Your task to perform on an android device: What's on my calendar tomorrow? Image 0: 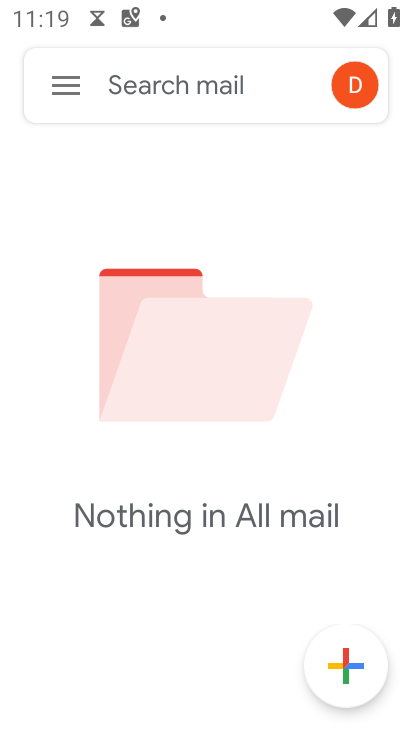
Step 0: press home button
Your task to perform on an android device: What's on my calendar tomorrow? Image 1: 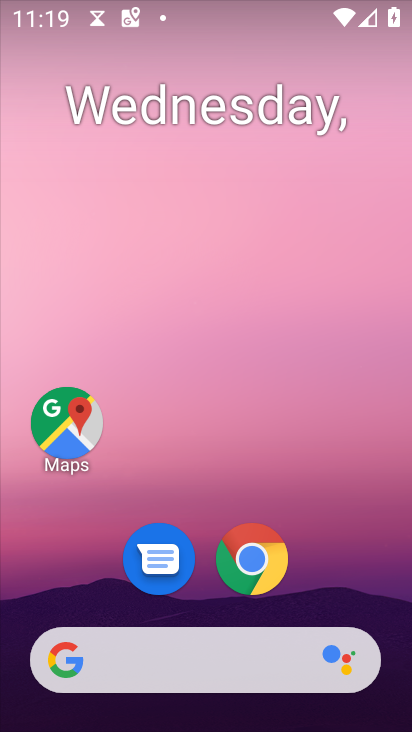
Step 1: drag from (374, 595) to (311, 233)
Your task to perform on an android device: What's on my calendar tomorrow? Image 2: 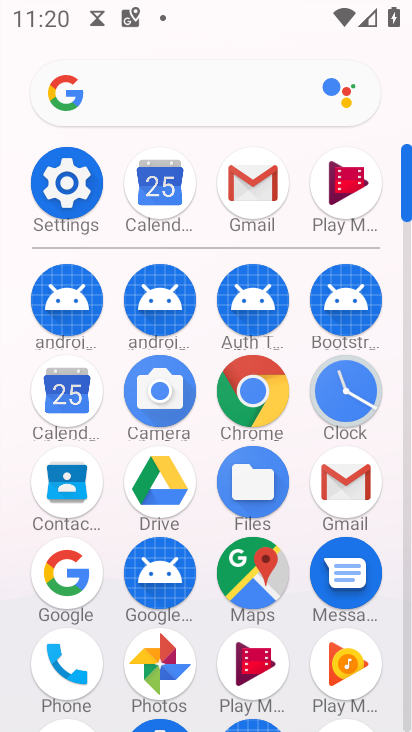
Step 2: click (69, 396)
Your task to perform on an android device: What's on my calendar tomorrow? Image 3: 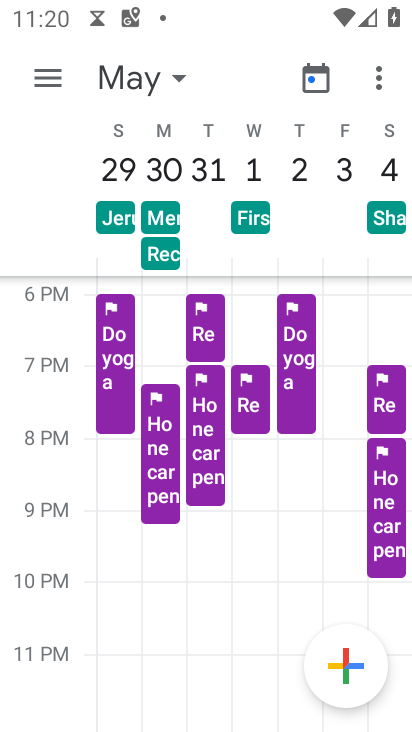
Step 3: click (118, 77)
Your task to perform on an android device: What's on my calendar tomorrow? Image 4: 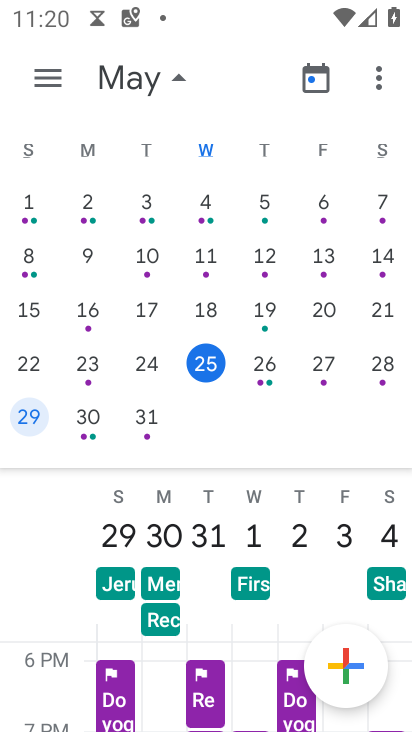
Step 4: click (53, 75)
Your task to perform on an android device: What's on my calendar tomorrow? Image 5: 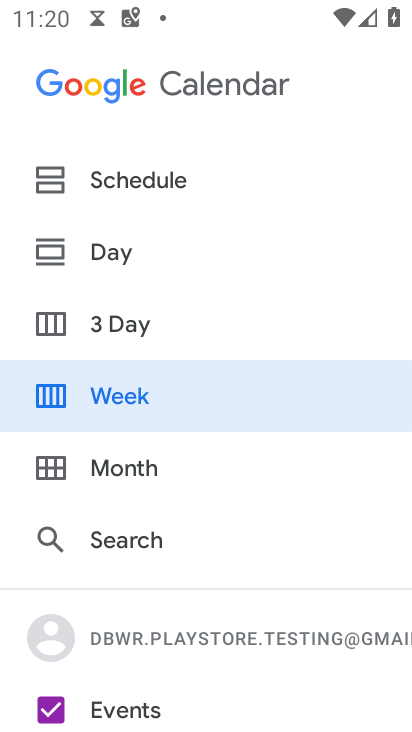
Step 5: click (119, 179)
Your task to perform on an android device: What's on my calendar tomorrow? Image 6: 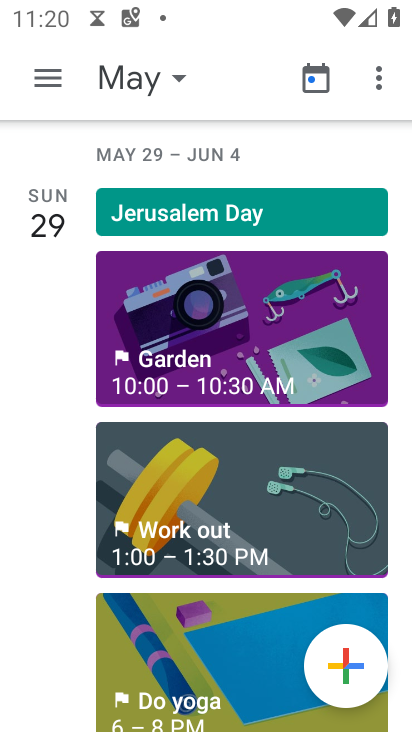
Step 6: click (173, 92)
Your task to perform on an android device: What's on my calendar tomorrow? Image 7: 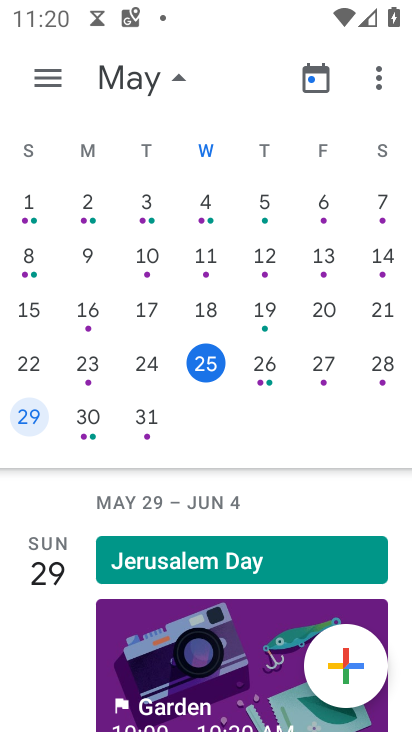
Step 7: click (333, 371)
Your task to perform on an android device: What's on my calendar tomorrow? Image 8: 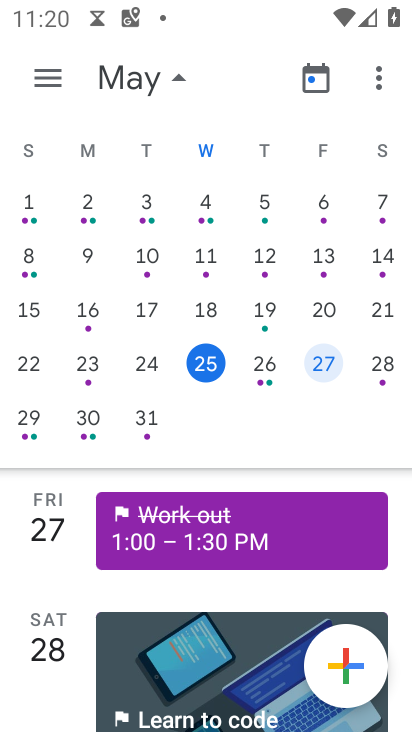
Step 8: click (158, 77)
Your task to perform on an android device: What's on my calendar tomorrow? Image 9: 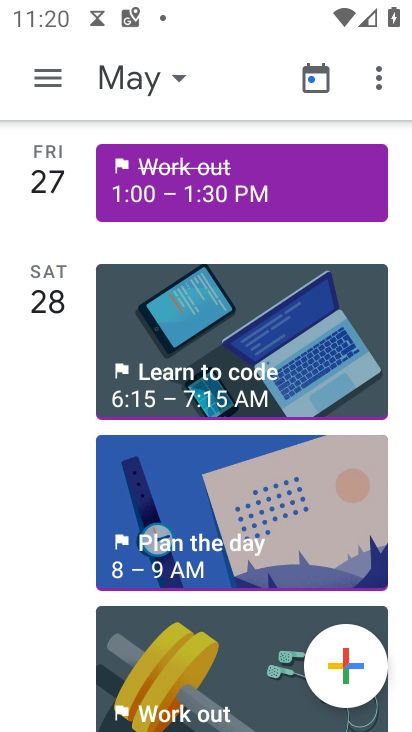
Step 9: task complete